Your task to perform on an android device: Go to Maps Image 0: 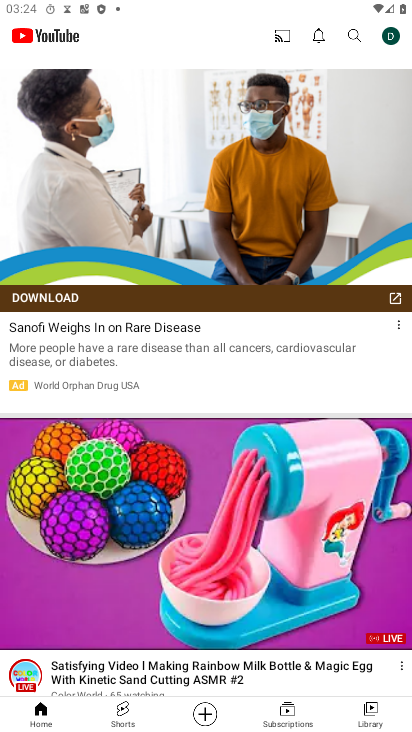
Step 0: press home button
Your task to perform on an android device: Go to Maps Image 1: 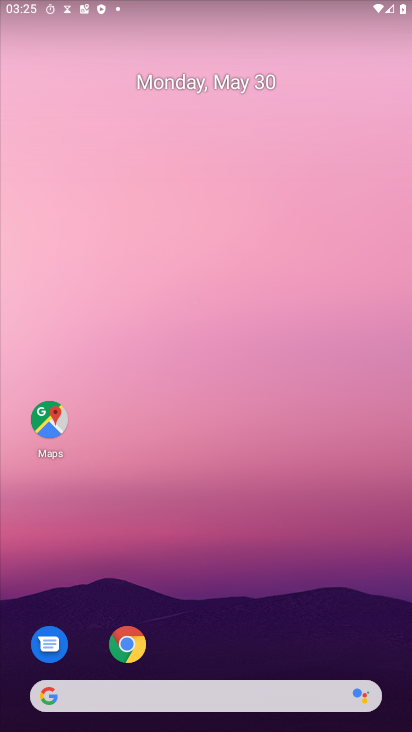
Step 1: click (61, 434)
Your task to perform on an android device: Go to Maps Image 2: 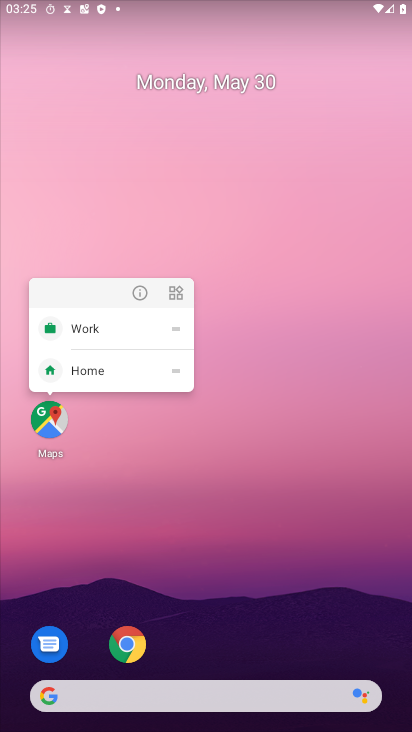
Step 2: click (267, 484)
Your task to perform on an android device: Go to Maps Image 3: 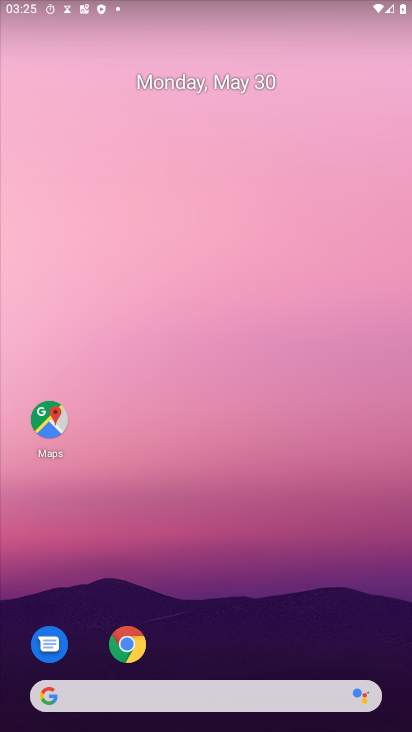
Step 3: drag from (249, 635) to (237, 41)
Your task to perform on an android device: Go to Maps Image 4: 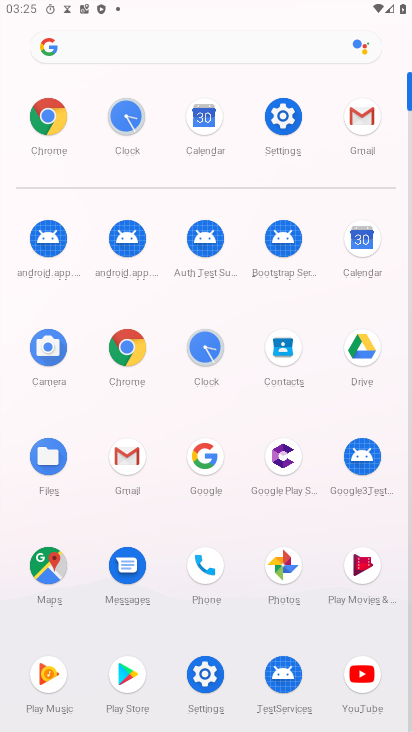
Step 4: click (44, 572)
Your task to perform on an android device: Go to Maps Image 5: 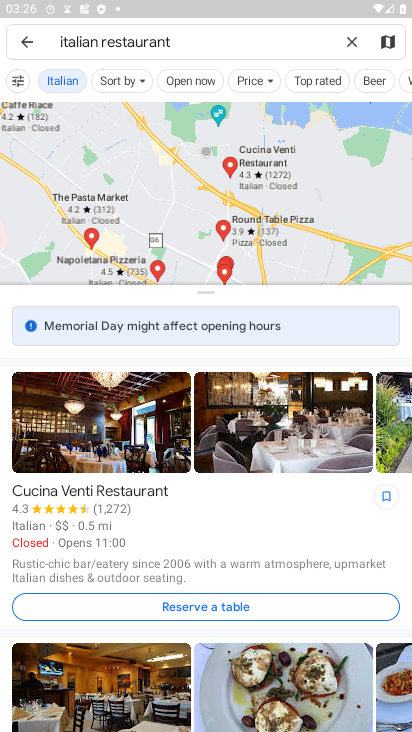
Step 5: click (353, 42)
Your task to perform on an android device: Go to Maps Image 6: 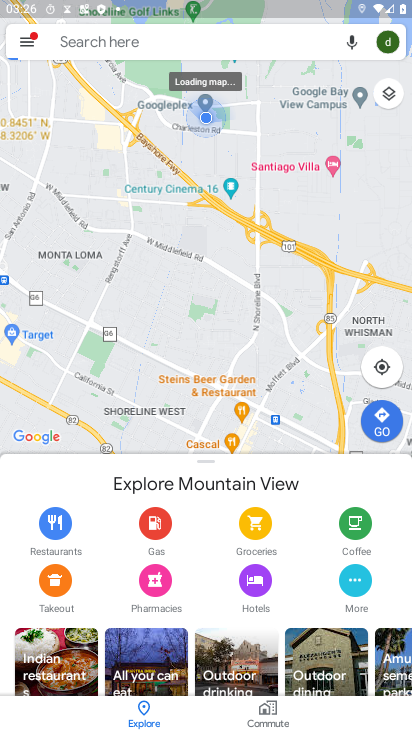
Step 6: task complete